Your task to perform on an android device: Open the map Image 0: 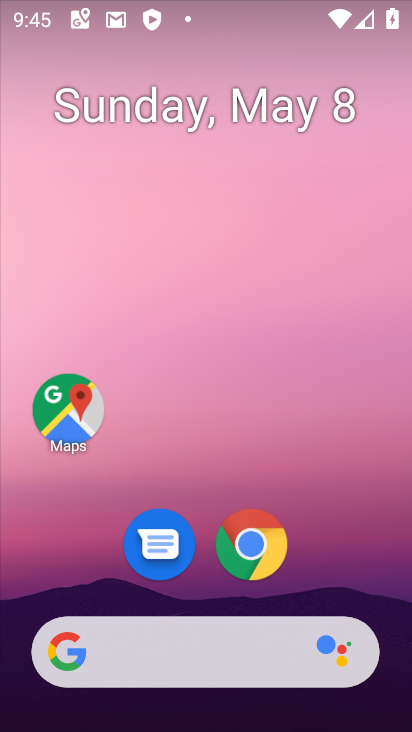
Step 0: click (74, 406)
Your task to perform on an android device: Open the map Image 1: 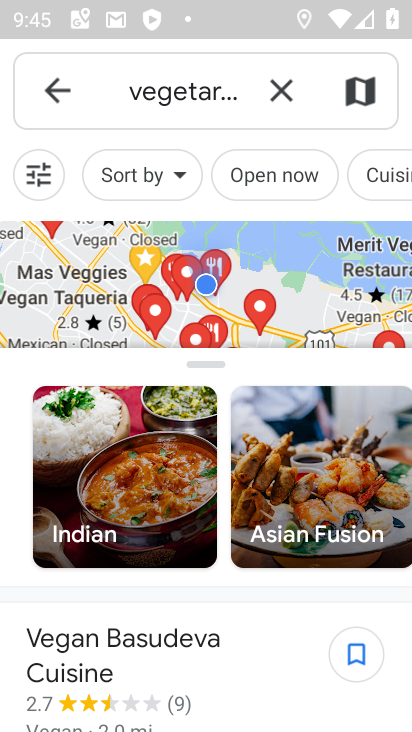
Step 1: task complete